Your task to perform on an android device: Open Wikipedia Image 0: 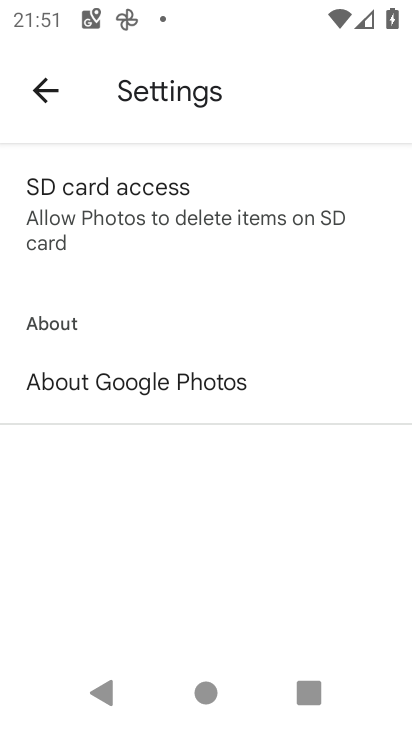
Step 0: task complete